Your task to perform on an android device: turn off wifi Image 0: 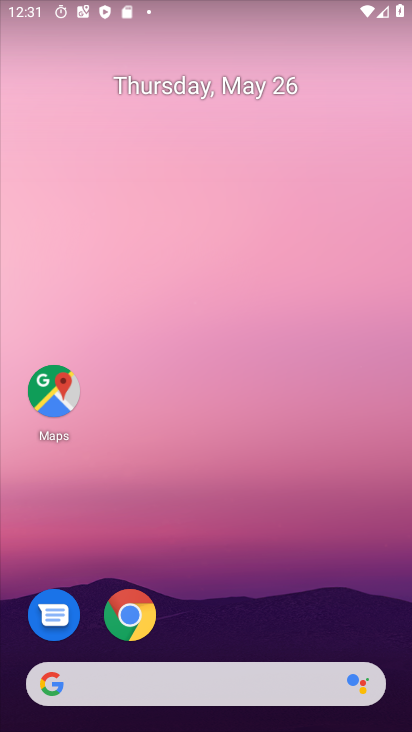
Step 0: drag from (230, 629) to (158, 290)
Your task to perform on an android device: turn off wifi Image 1: 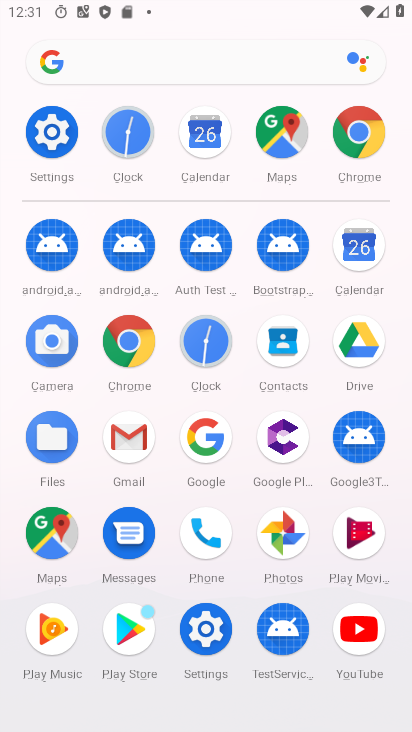
Step 1: click (56, 135)
Your task to perform on an android device: turn off wifi Image 2: 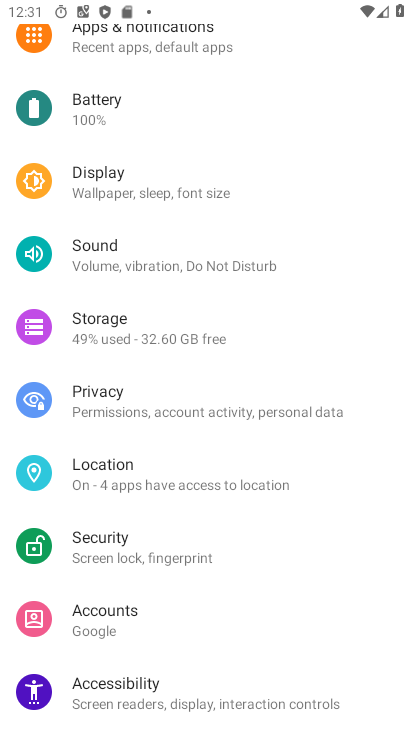
Step 2: drag from (230, 142) to (296, 588)
Your task to perform on an android device: turn off wifi Image 3: 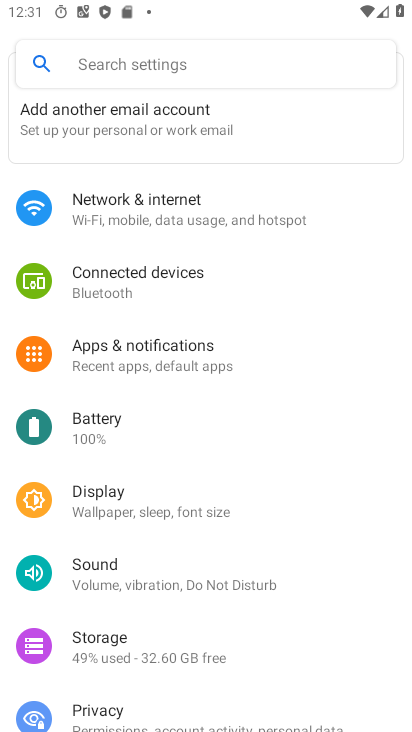
Step 3: click (280, 204)
Your task to perform on an android device: turn off wifi Image 4: 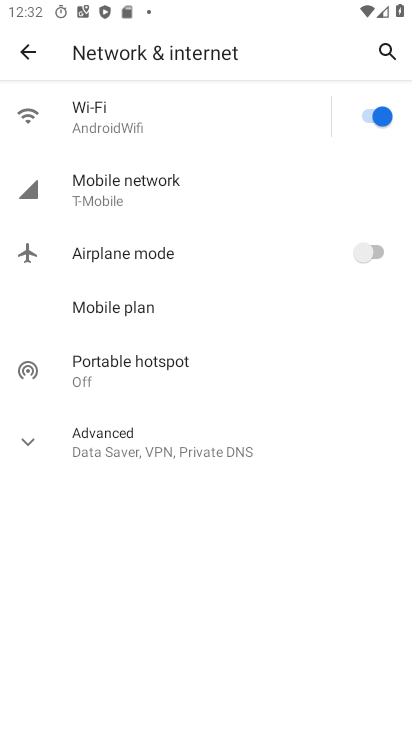
Step 4: click (388, 110)
Your task to perform on an android device: turn off wifi Image 5: 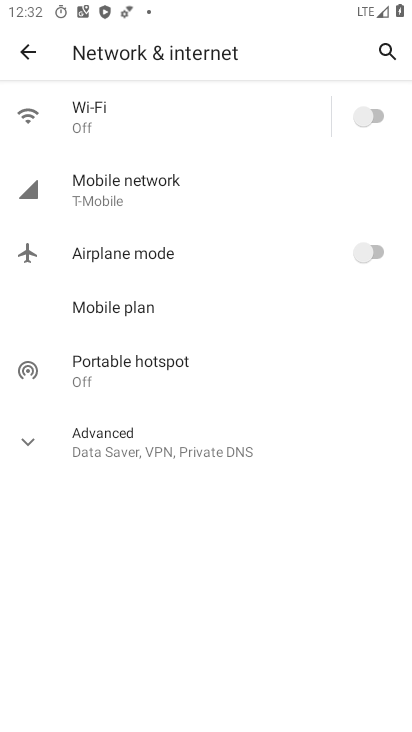
Step 5: task complete